Your task to perform on an android device: Show me popular videos on Youtube Image 0: 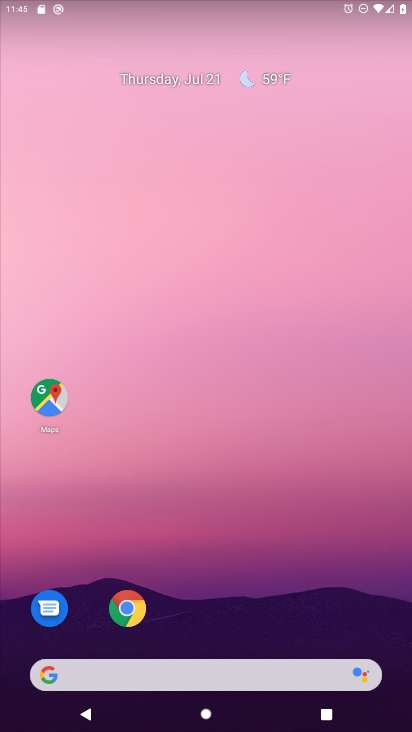
Step 0: drag from (340, 619) to (151, 85)
Your task to perform on an android device: Show me popular videos on Youtube Image 1: 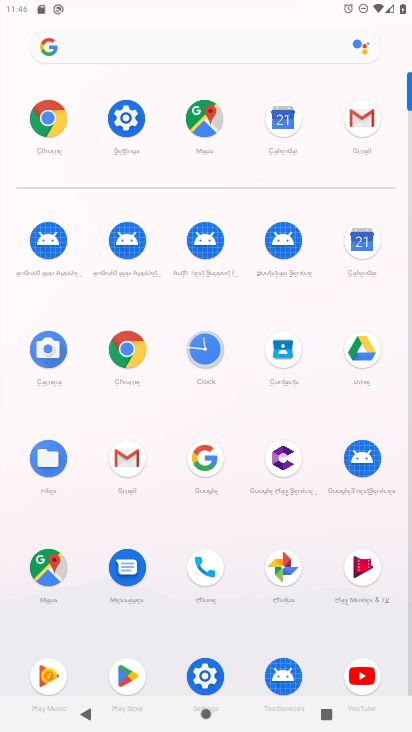
Step 1: click (368, 675)
Your task to perform on an android device: Show me popular videos on Youtube Image 2: 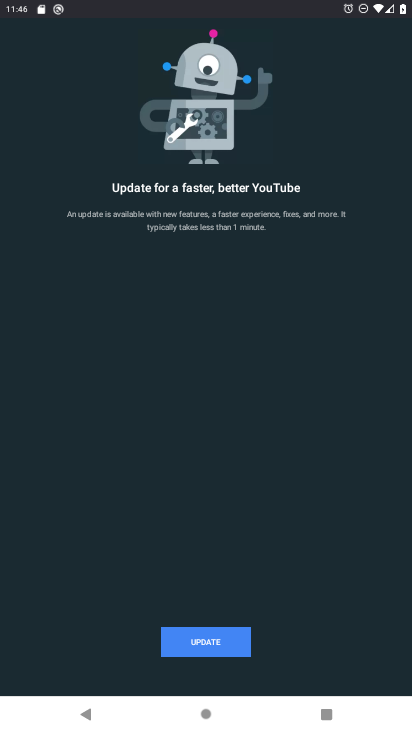
Step 2: task complete